Your task to perform on an android device: turn on data saver in the chrome app Image 0: 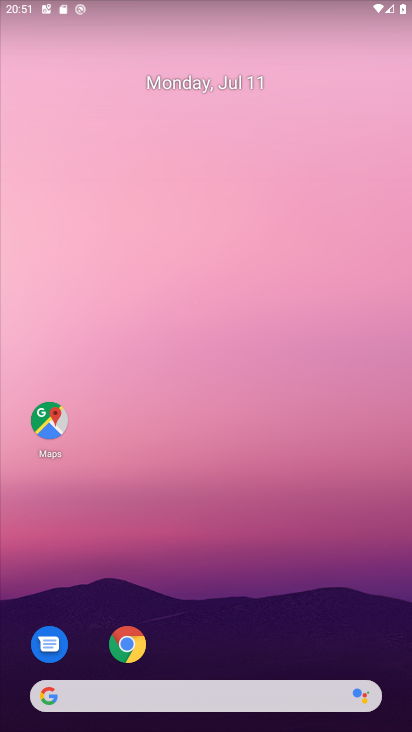
Step 0: drag from (249, 694) to (229, 183)
Your task to perform on an android device: turn on data saver in the chrome app Image 1: 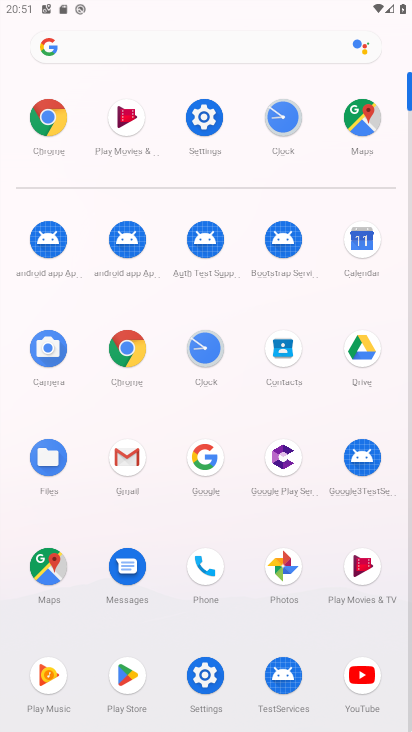
Step 1: click (139, 335)
Your task to perform on an android device: turn on data saver in the chrome app Image 2: 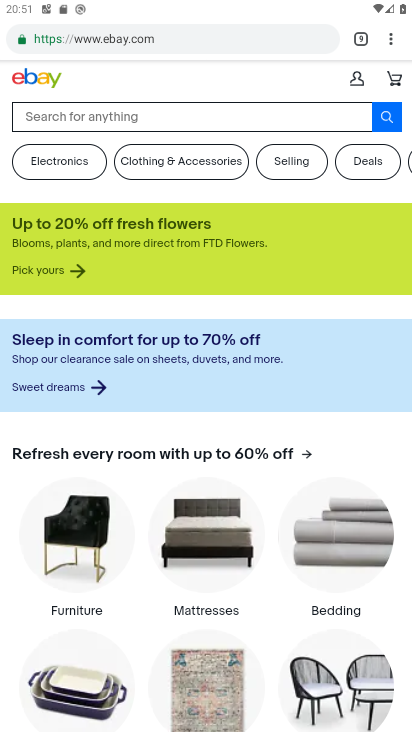
Step 2: click (394, 41)
Your task to perform on an android device: turn on data saver in the chrome app Image 3: 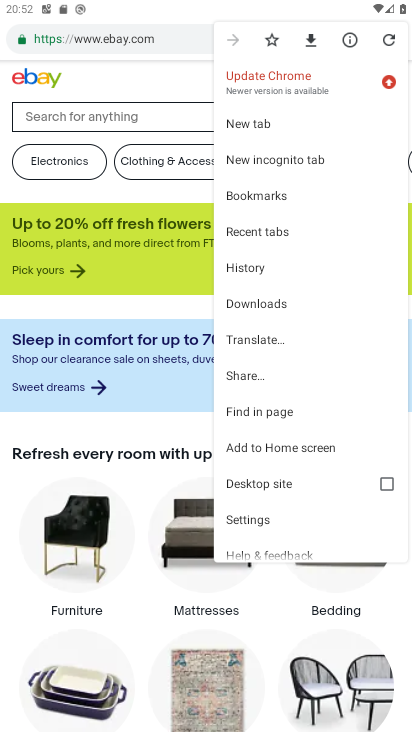
Step 3: click (256, 525)
Your task to perform on an android device: turn on data saver in the chrome app Image 4: 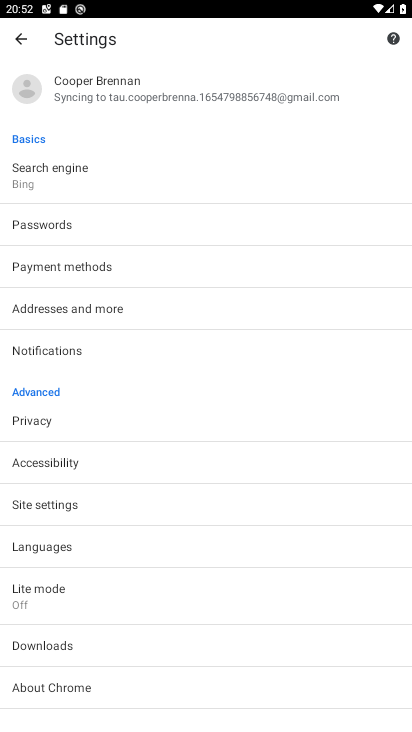
Step 4: click (95, 603)
Your task to perform on an android device: turn on data saver in the chrome app Image 5: 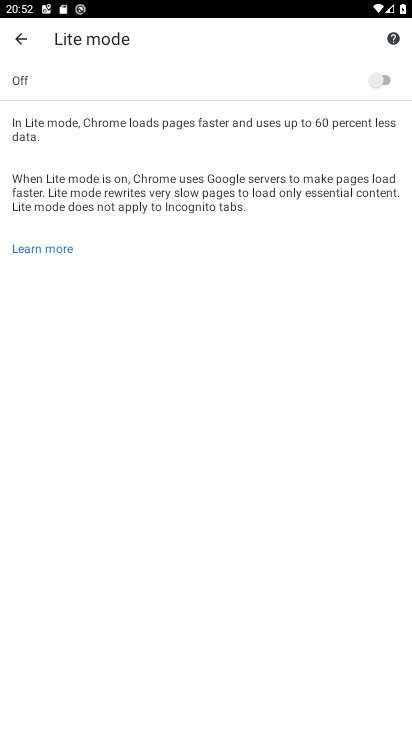
Step 5: click (372, 76)
Your task to perform on an android device: turn on data saver in the chrome app Image 6: 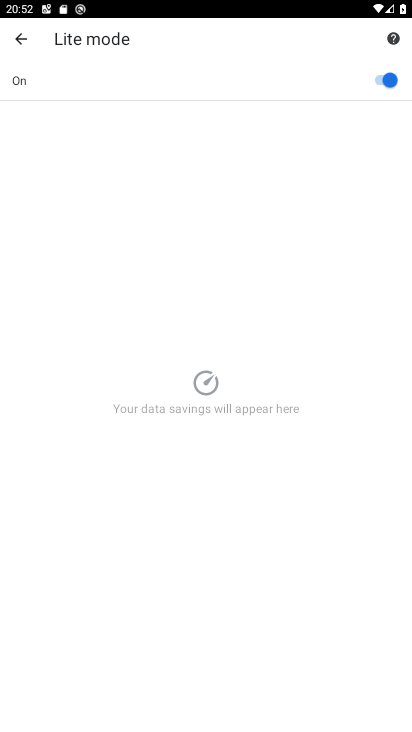
Step 6: task complete